Your task to perform on an android device: Find coffee shops on Maps Image 0: 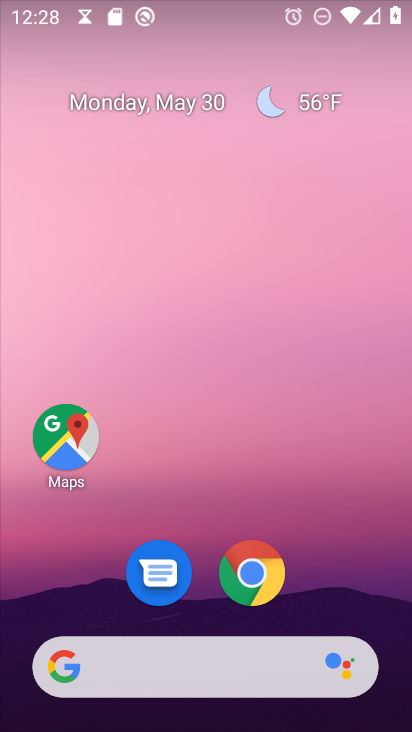
Step 0: drag from (202, 632) to (275, 16)
Your task to perform on an android device: Find coffee shops on Maps Image 1: 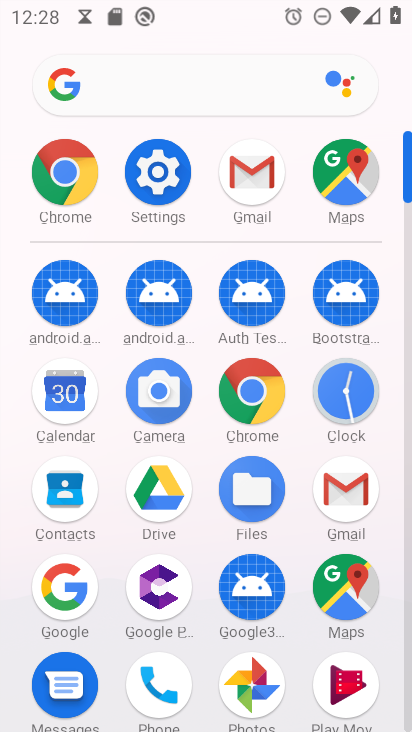
Step 1: click (357, 600)
Your task to perform on an android device: Find coffee shops on Maps Image 2: 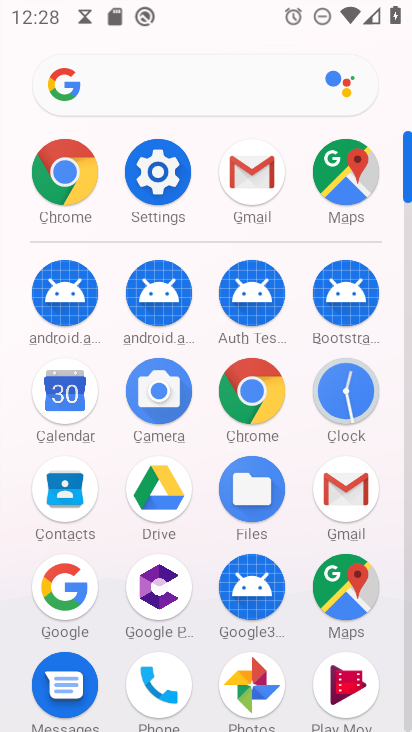
Step 2: click (357, 600)
Your task to perform on an android device: Find coffee shops on Maps Image 3: 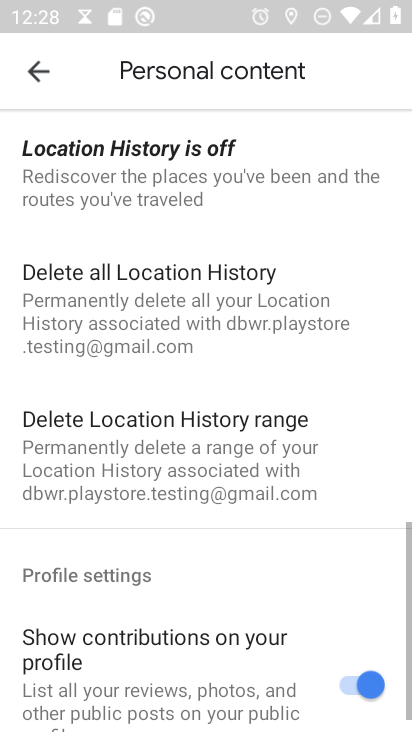
Step 3: press back button
Your task to perform on an android device: Find coffee shops on Maps Image 4: 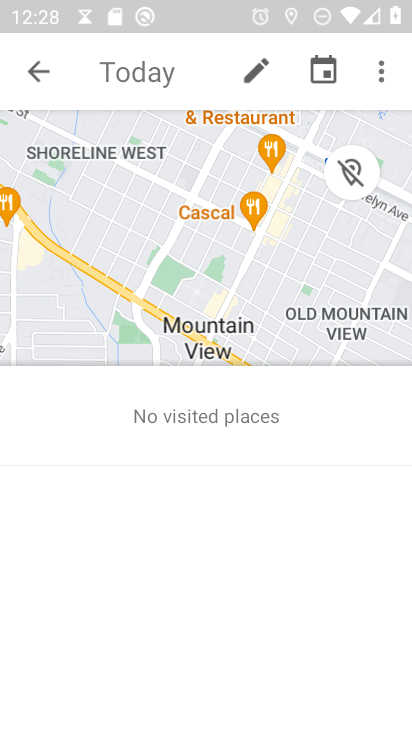
Step 4: press back button
Your task to perform on an android device: Find coffee shops on Maps Image 5: 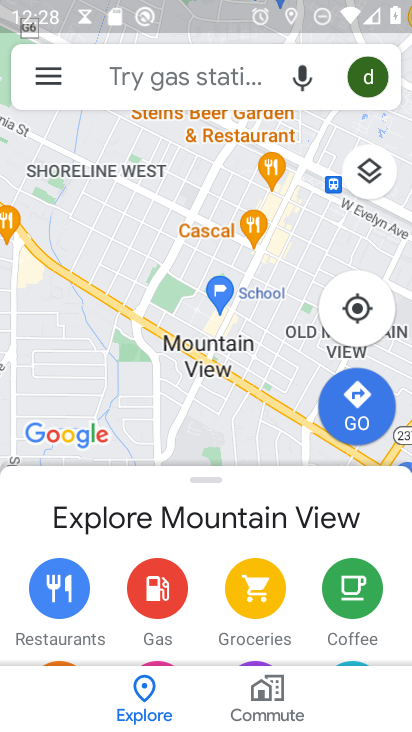
Step 5: click (138, 79)
Your task to perform on an android device: Find coffee shops on Maps Image 6: 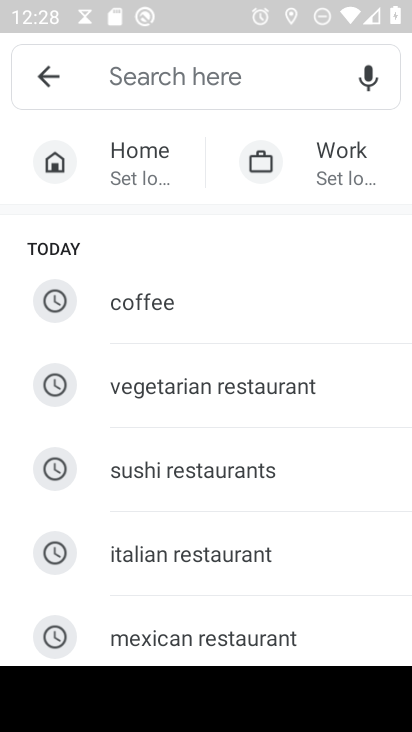
Step 6: drag from (296, 577) to (271, 194)
Your task to perform on an android device: Find coffee shops on Maps Image 7: 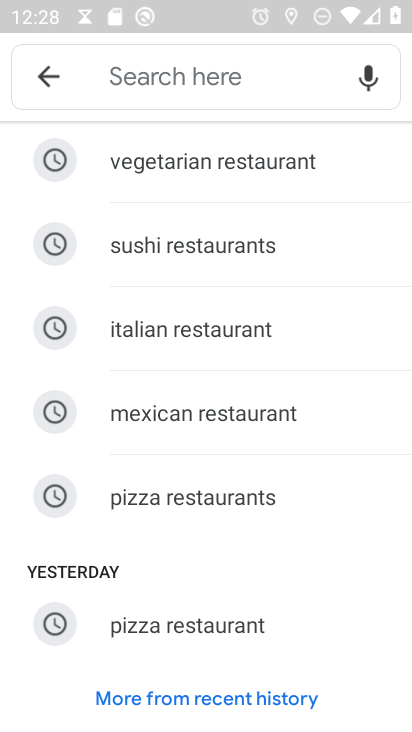
Step 7: click (98, 64)
Your task to perform on an android device: Find coffee shops on Maps Image 8: 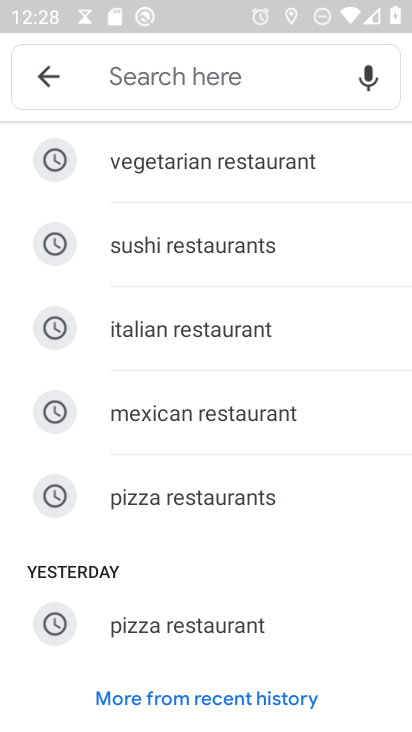
Step 8: click (162, 84)
Your task to perform on an android device: Find coffee shops on Maps Image 9: 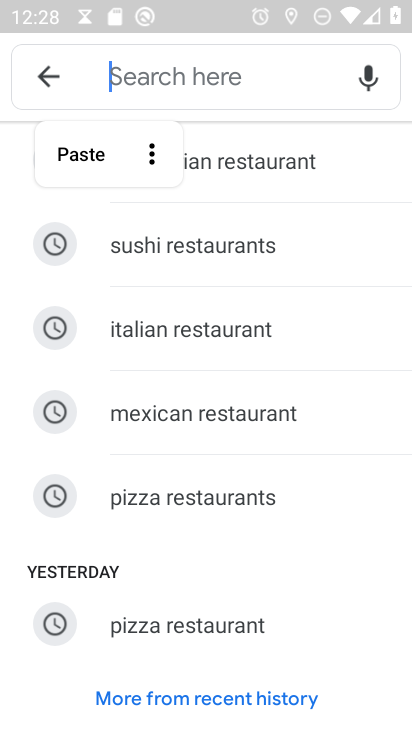
Step 9: type "coffee shops"
Your task to perform on an android device: Find coffee shops on Maps Image 10: 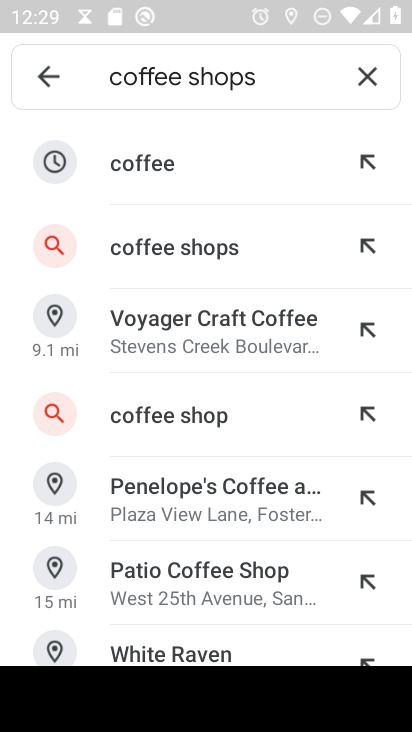
Step 10: click (261, 255)
Your task to perform on an android device: Find coffee shops on Maps Image 11: 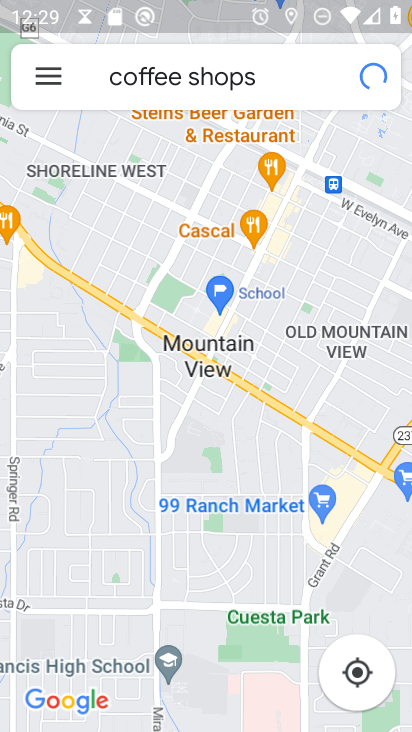
Step 11: task complete